Your task to perform on an android device: Search for Italian restaurants on Maps Image 0: 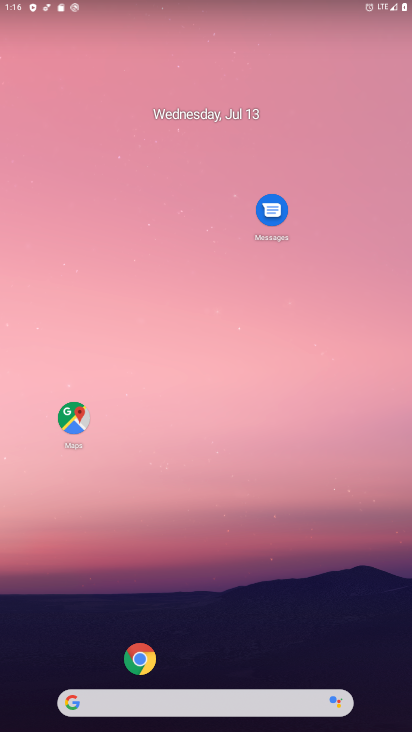
Step 0: drag from (38, 682) to (406, 97)
Your task to perform on an android device: Search for Italian restaurants on Maps Image 1: 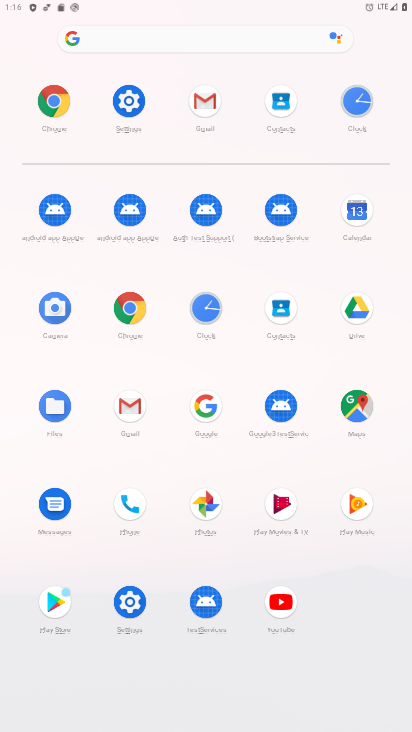
Step 1: click (359, 407)
Your task to perform on an android device: Search for Italian restaurants on Maps Image 2: 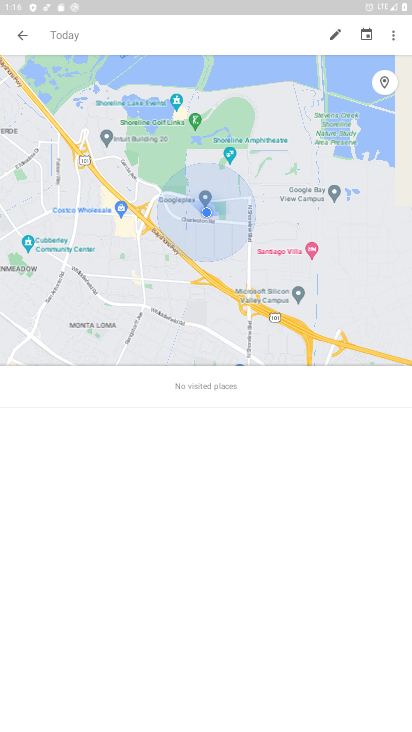
Step 2: click (14, 35)
Your task to perform on an android device: Search for Italian restaurants on Maps Image 3: 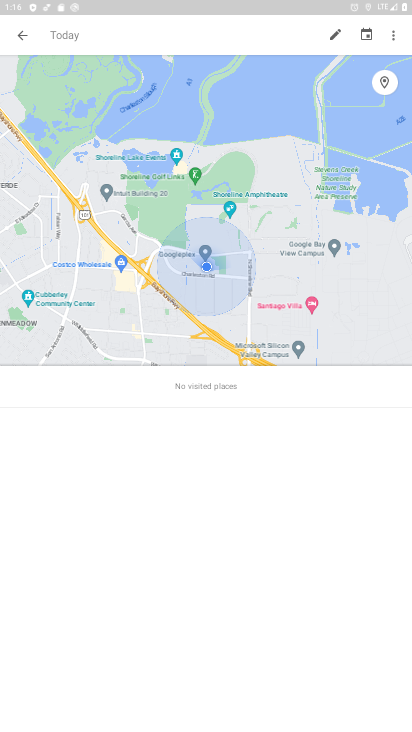
Step 3: click (21, 33)
Your task to perform on an android device: Search for Italian restaurants on Maps Image 4: 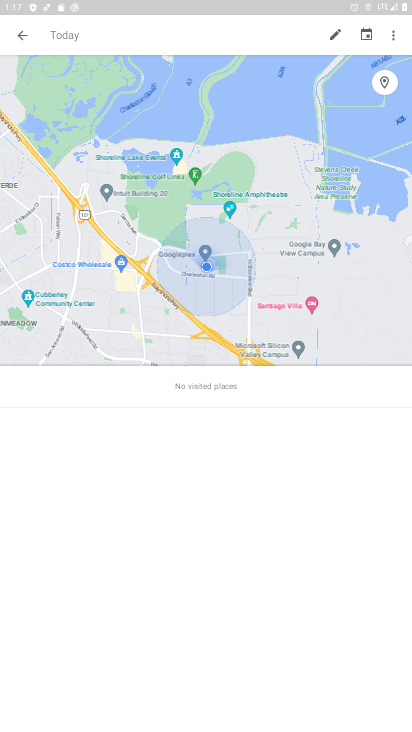
Step 4: click (85, 32)
Your task to perform on an android device: Search for Italian restaurants on Maps Image 5: 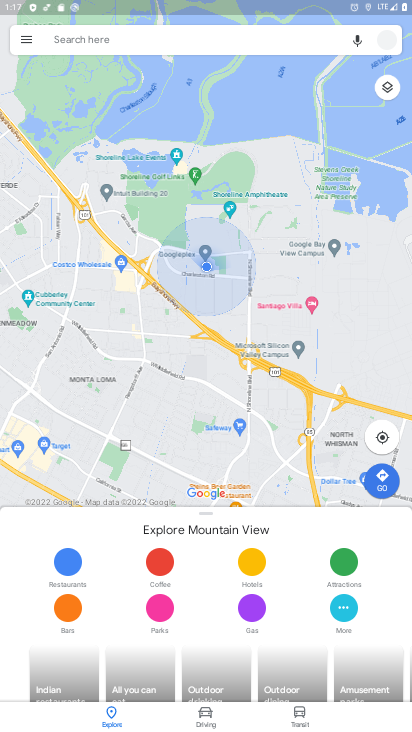
Step 5: click (79, 38)
Your task to perform on an android device: Search for Italian restaurants on Maps Image 6: 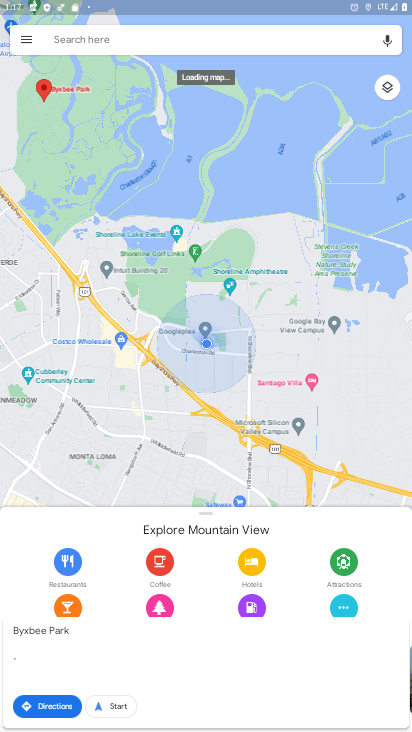
Step 6: click (55, 37)
Your task to perform on an android device: Search for Italian restaurants on Maps Image 7: 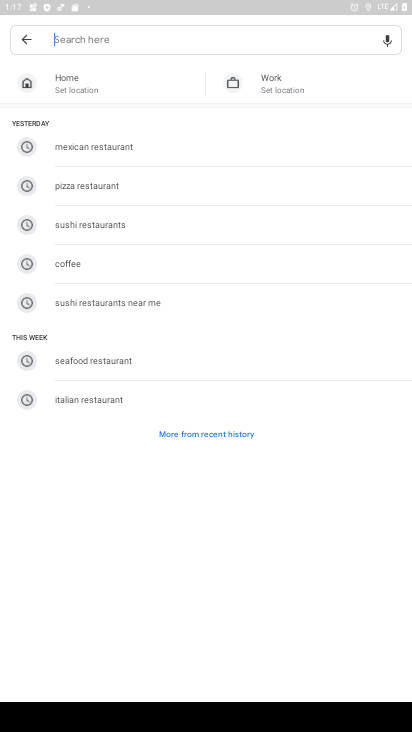
Step 7: type "Italian restaurants"
Your task to perform on an android device: Search for Italian restaurants on Maps Image 8: 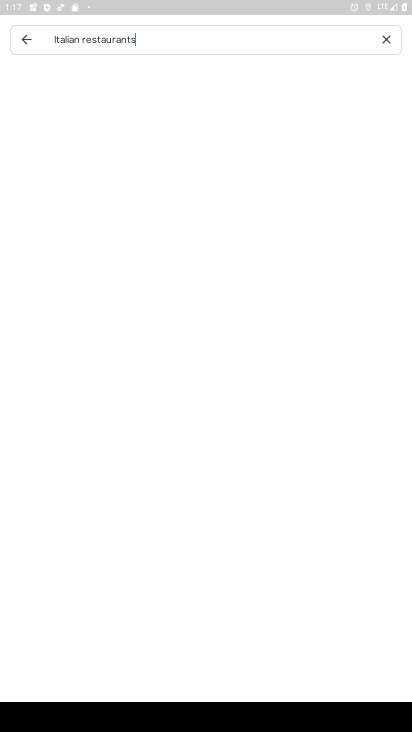
Step 8: type ""
Your task to perform on an android device: Search for Italian restaurants on Maps Image 9: 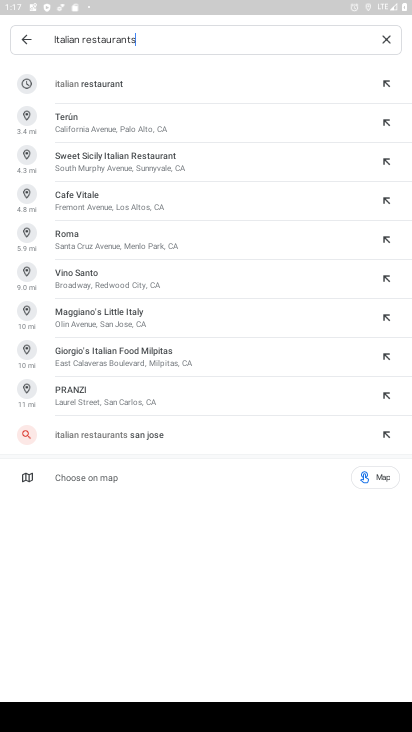
Step 9: click (73, 84)
Your task to perform on an android device: Search for Italian restaurants on Maps Image 10: 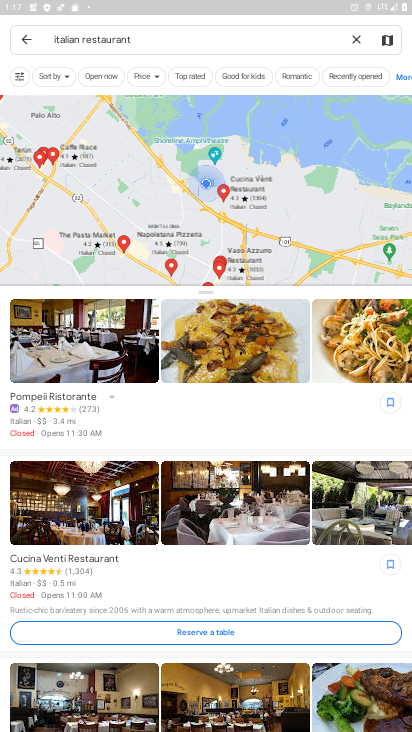
Step 10: task complete